Your task to perform on an android device: Find coffee shops on Maps Image 0: 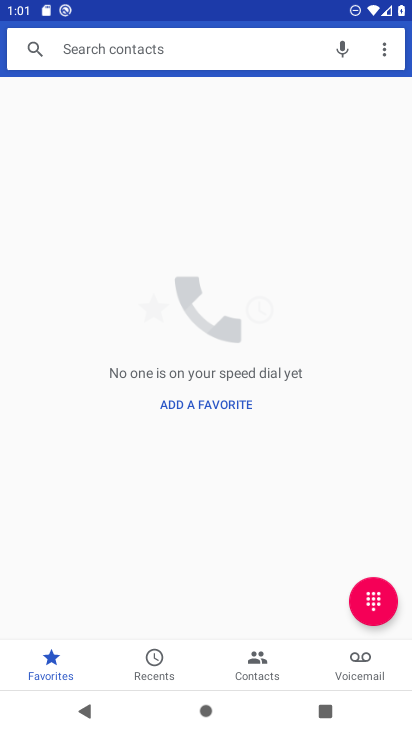
Step 0: press home button
Your task to perform on an android device: Find coffee shops on Maps Image 1: 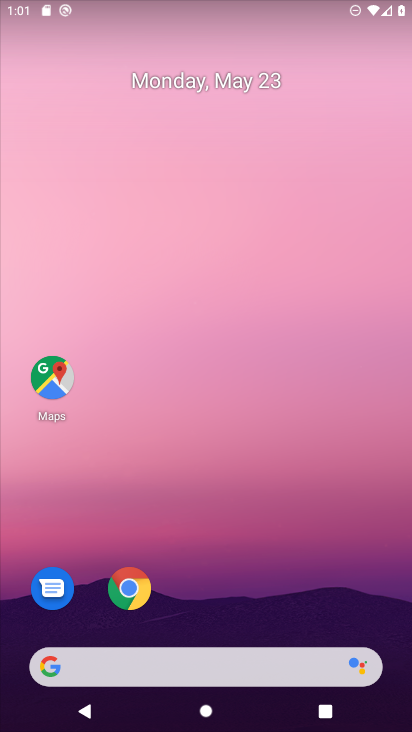
Step 1: drag from (166, 636) to (213, 131)
Your task to perform on an android device: Find coffee shops on Maps Image 2: 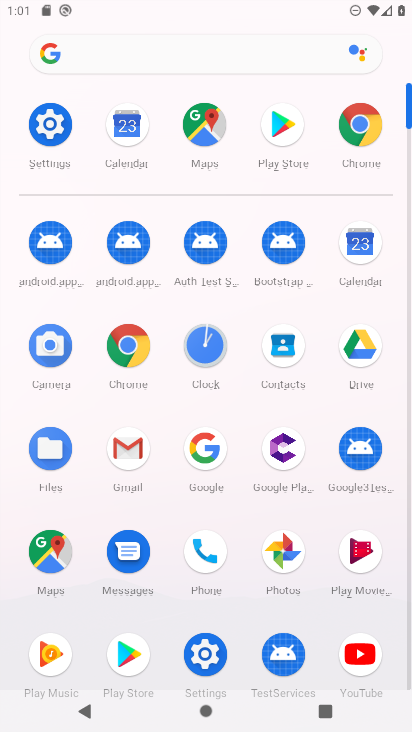
Step 2: click (56, 547)
Your task to perform on an android device: Find coffee shops on Maps Image 3: 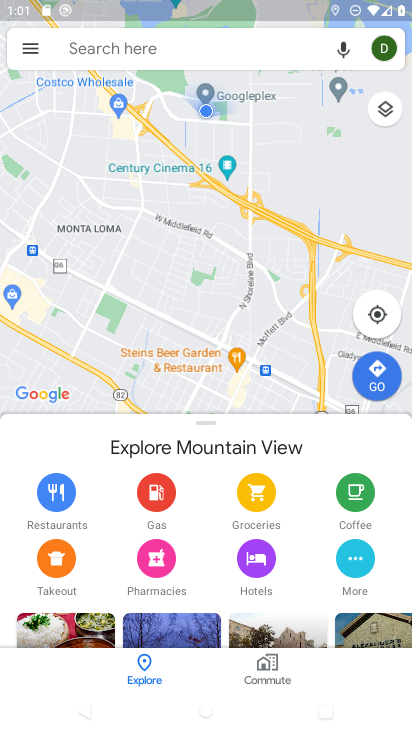
Step 3: click (162, 51)
Your task to perform on an android device: Find coffee shops on Maps Image 4: 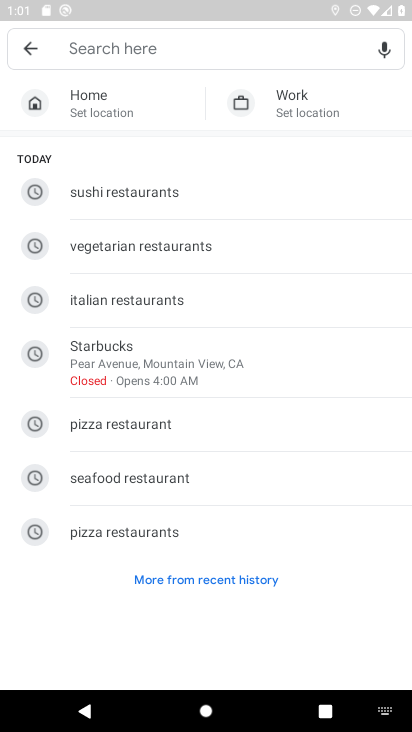
Step 4: click (175, 579)
Your task to perform on an android device: Find coffee shops on Maps Image 5: 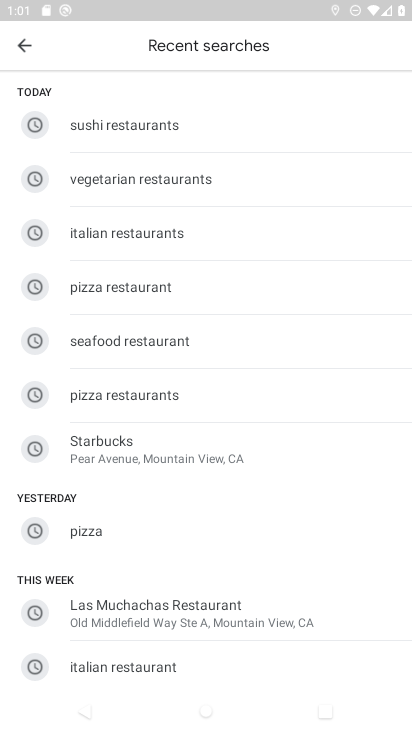
Step 5: drag from (154, 348) to (161, 197)
Your task to perform on an android device: Find coffee shops on Maps Image 6: 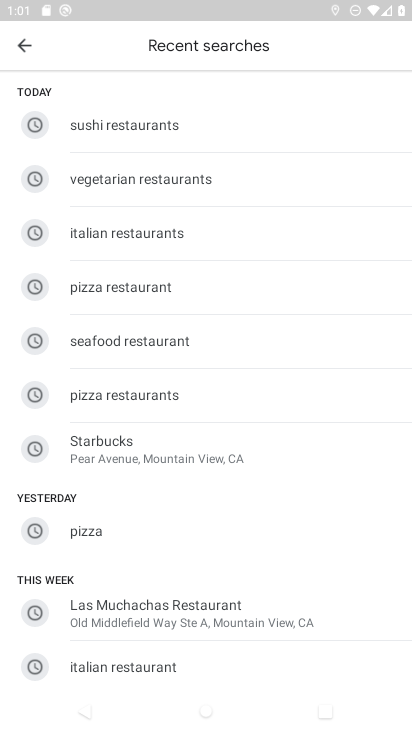
Step 6: type "coffee shopes"
Your task to perform on an android device: Find coffee shops on Maps Image 7: 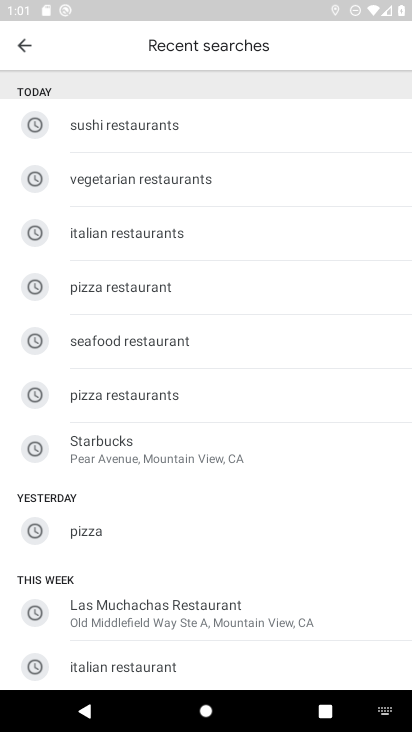
Step 7: click (26, 47)
Your task to perform on an android device: Find coffee shops on Maps Image 8: 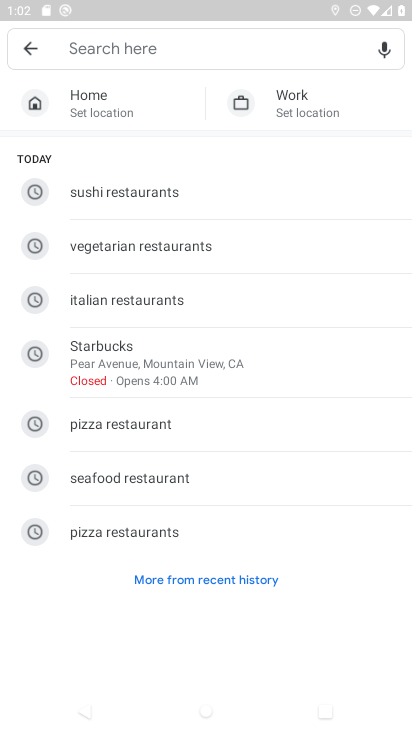
Step 8: click (92, 55)
Your task to perform on an android device: Find coffee shops on Maps Image 9: 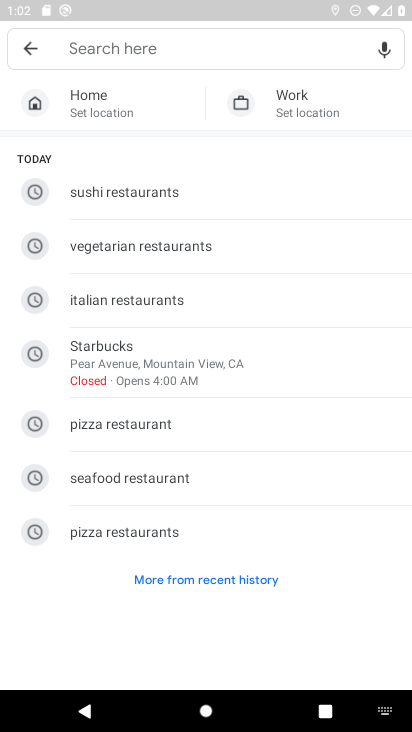
Step 9: type "coffee shopes"
Your task to perform on an android device: Find coffee shops on Maps Image 10: 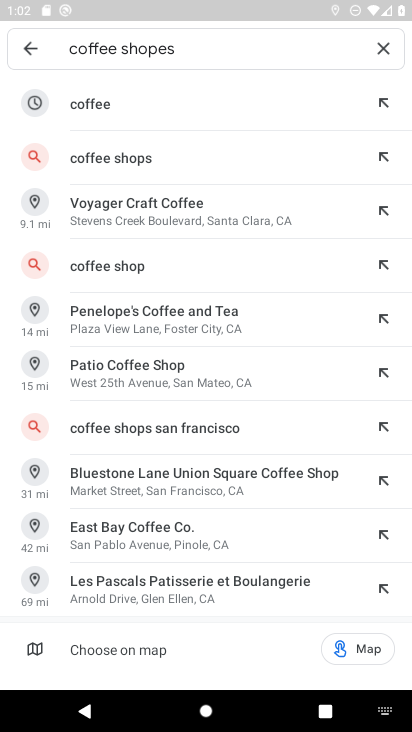
Step 10: click (114, 149)
Your task to perform on an android device: Find coffee shops on Maps Image 11: 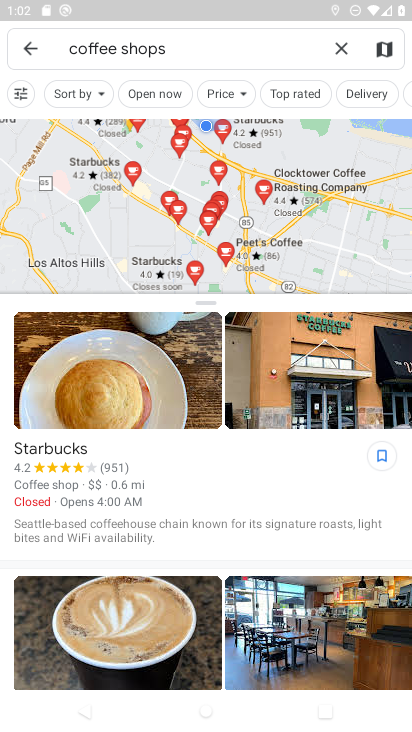
Step 11: task complete